Your task to perform on an android device: open chrome and create a bookmark for the current page Image 0: 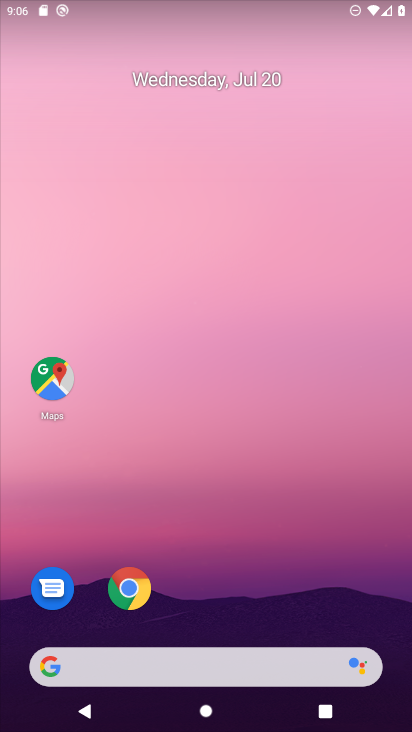
Step 0: click (400, 594)
Your task to perform on an android device: open chrome and create a bookmark for the current page Image 1: 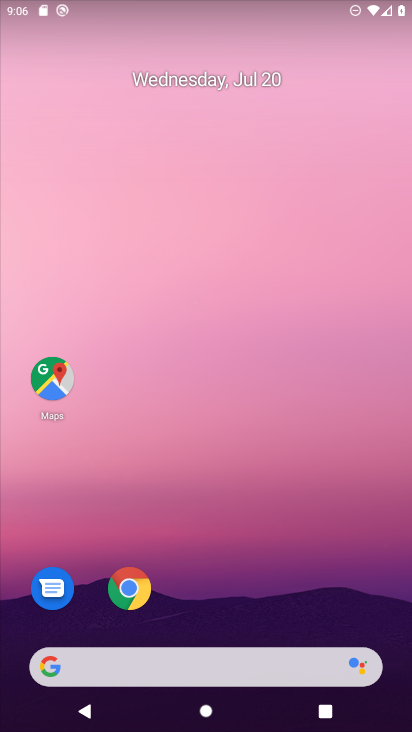
Step 1: click (145, 590)
Your task to perform on an android device: open chrome and create a bookmark for the current page Image 2: 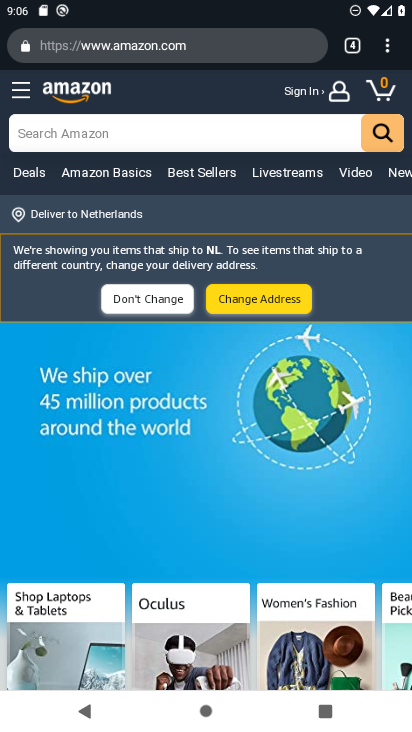
Step 2: click (392, 47)
Your task to perform on an android device: open chrome and create a bookmark for the current page Image 3: 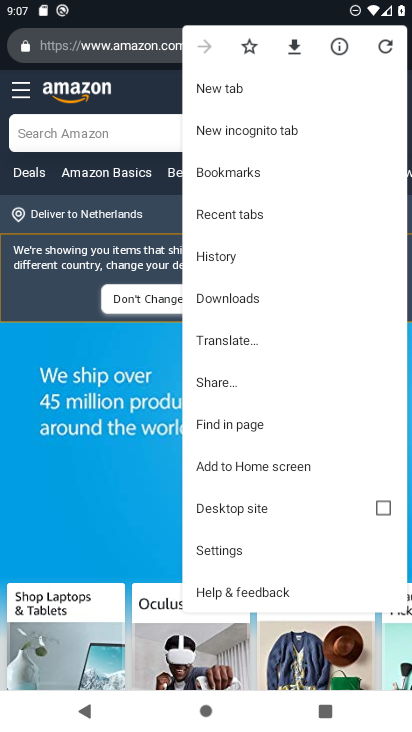
Step 3: click (255, 47)
Your task to perform on an android device: open chrome and create a bookmark for the current page Image 4: 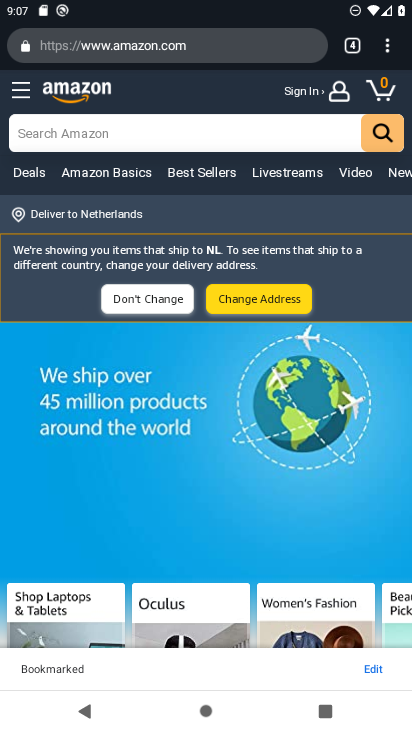
Step 4: task complete